Your task to perform on an android device: turn off picture-in-picture Image 0: 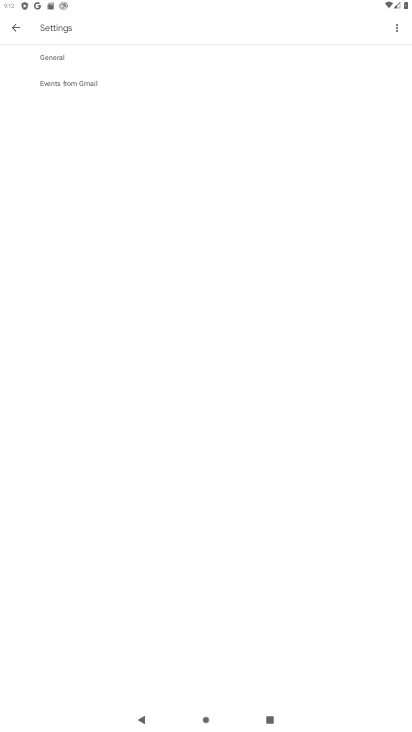
Step 0: press home button
Your task to perform on an android device: turn off picture-in-picture Image 1: 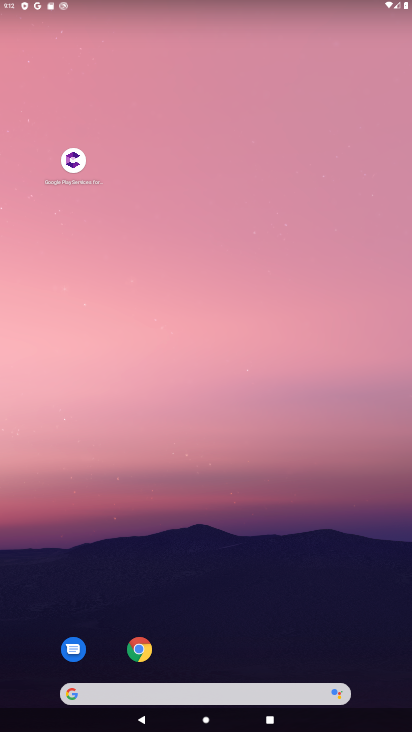
Step 1: click (131, 657)
Your task to perform on an android device: turn off picture-in-picture Image 2: 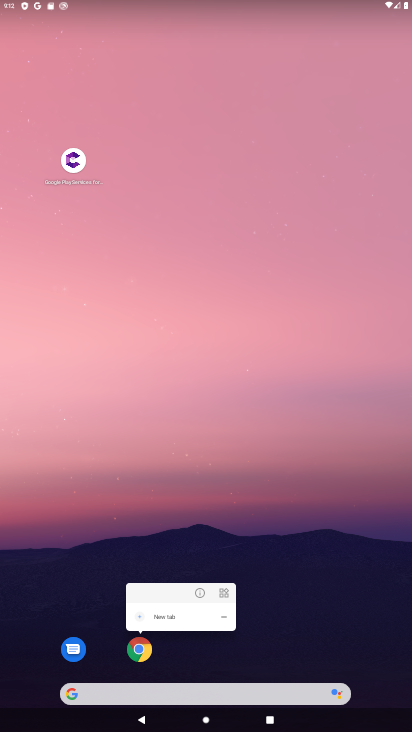
Step 2: click (197, 596)
Your task to perform on an android device: turn off picture-in-picture Image 3: 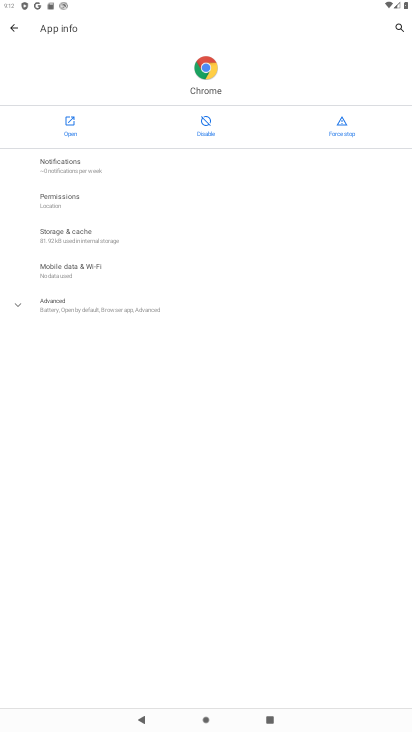
Step 3: click (82, 311)
Your task to perform on an android device: turn off picture-in-picture Image 4: 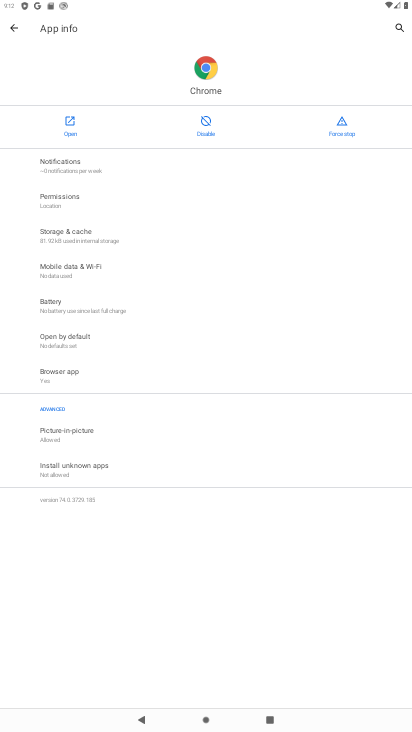
Step 4: click (47, 434)
Your task to perform on an android device: turn off picture-in-picture Image 5: 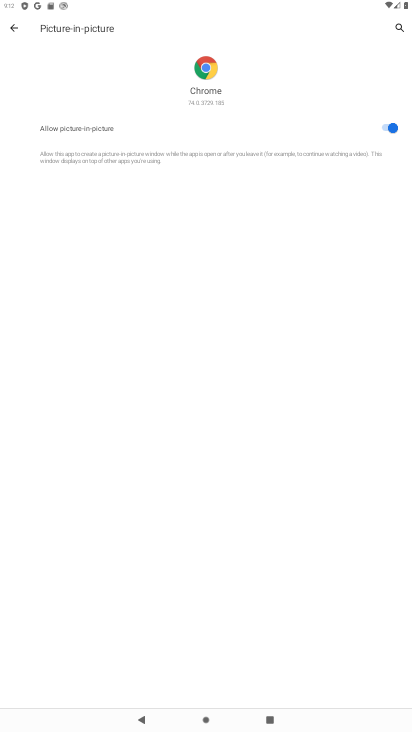
Step 5: click (380, 125)
Your task to perform on an android device: turn off picture-in-picture Image 6: 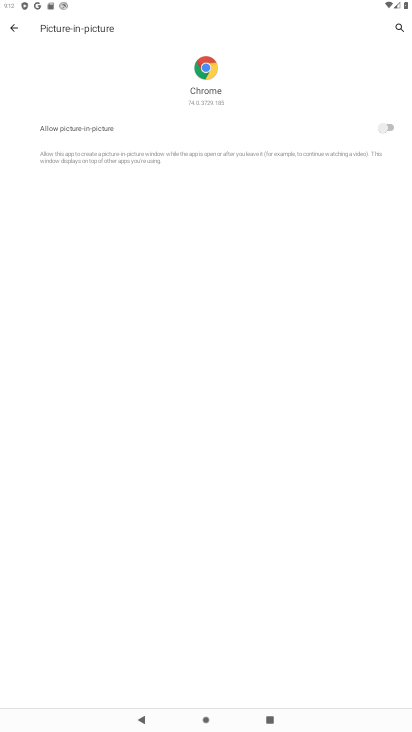
Step 6: task complete